Your task to perform on an android device: change the clock style Image 0: 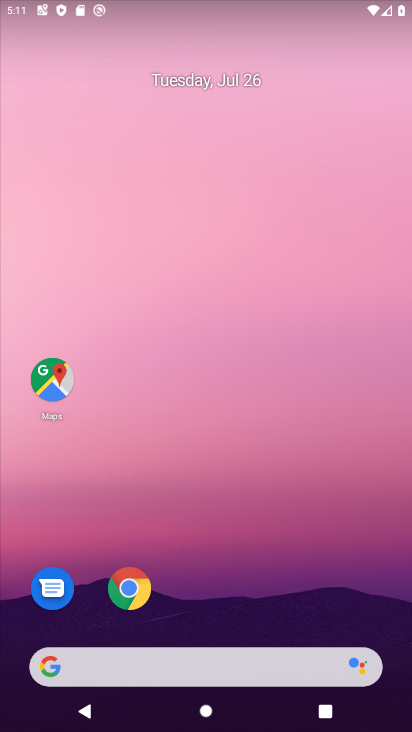
Step 0: drag from (161, 679) to (155, 253)
Your task to perform on an android device: change the clock style Image 1: 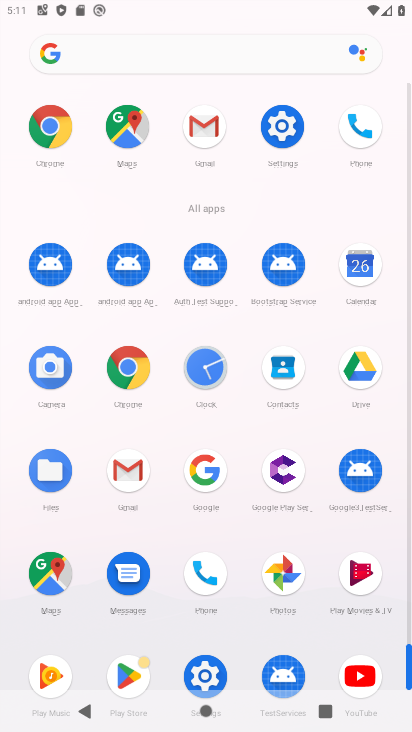
Step 1: click (202, 391)
Your task to perform on an android device: change the clock style Image 2: 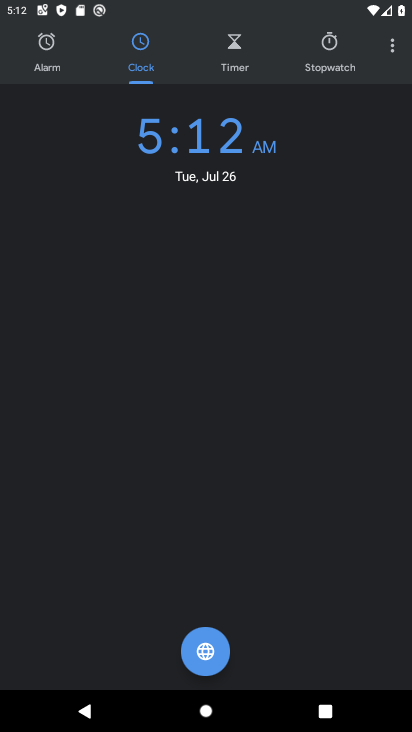
Step 2: click (391, 53)
Your task to perform on an android device: change the clock style Image 3: 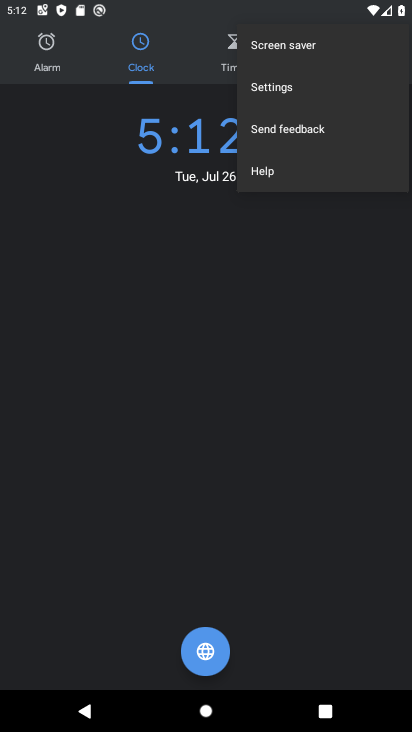
Step 3: click (285, 91)
Your task to perform on an android device: change the clock style Image 4: 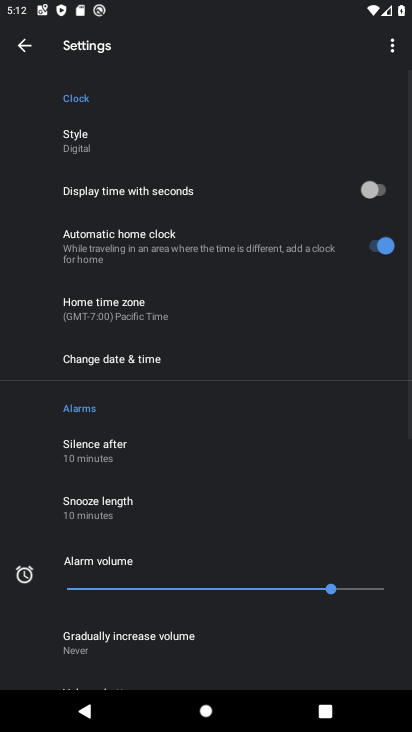
Step 4: click (115, 150)
Your task to perform on an android device: change the clock style Image 5: 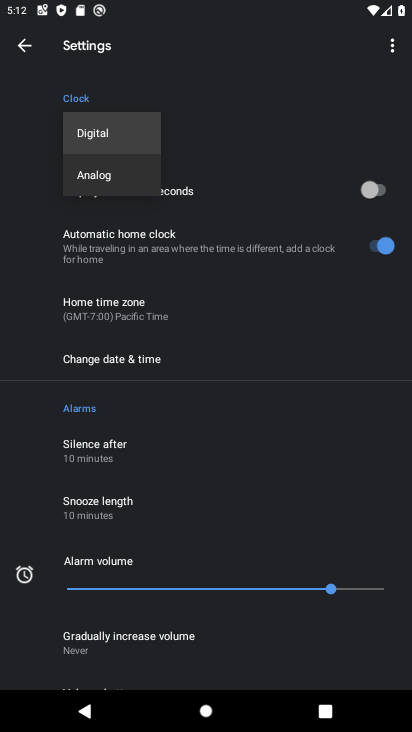
Step 5: click (129, 172)
Your task to perform on an android device: change the clock style Image 6: 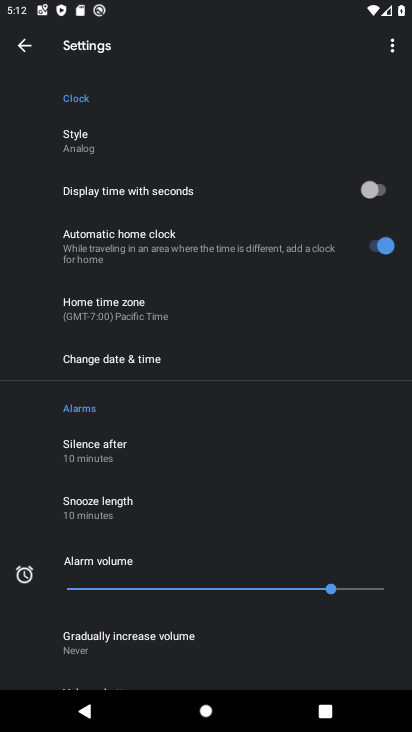
Step 6: task complete